Your task to perform on an android device: Go to Google Image 0: 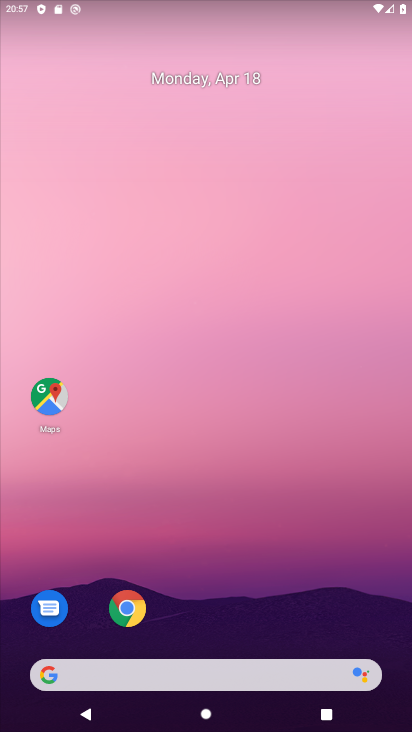
Step 0: click (288, 129)
Your task to perform on an android device: Go to Google Image 1: 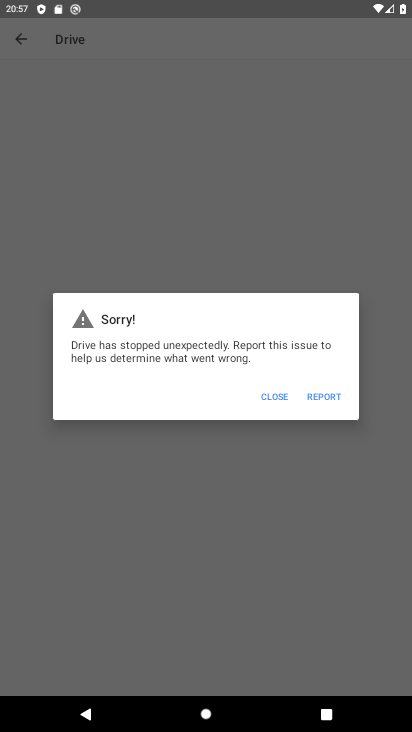
Step 1: press home button
Your task to perform on an android device: Go to Google Image 2: 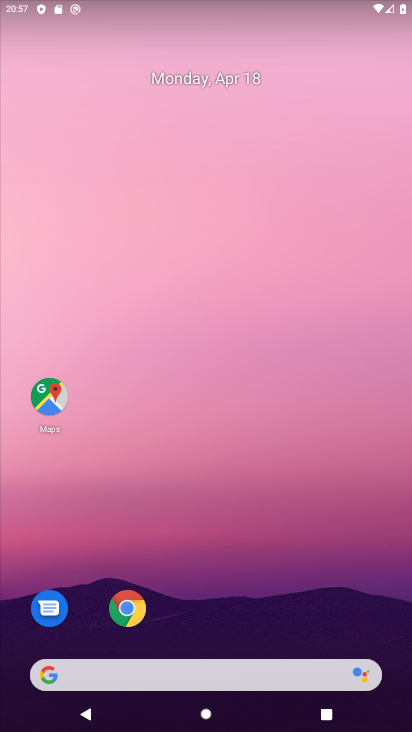
Step 2: drag from (279, 480) to (318, 112)
Your task to perform on an android device: Go to Google Image 3: 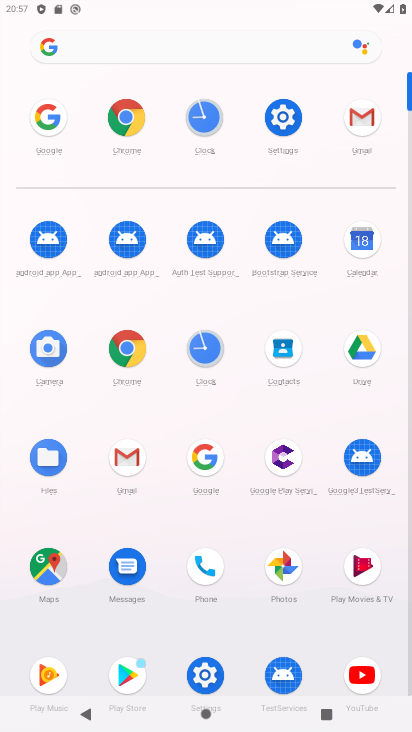
Step 3: click (51, 111)
Your task to perform on an android device: Go to Google Image 4: 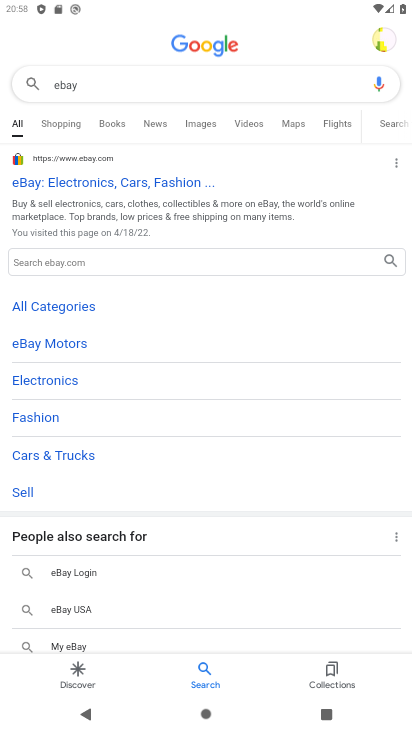
Step 4: task complete